Your task to perform on an android device: add a label to a message in the gmail app Image 0: 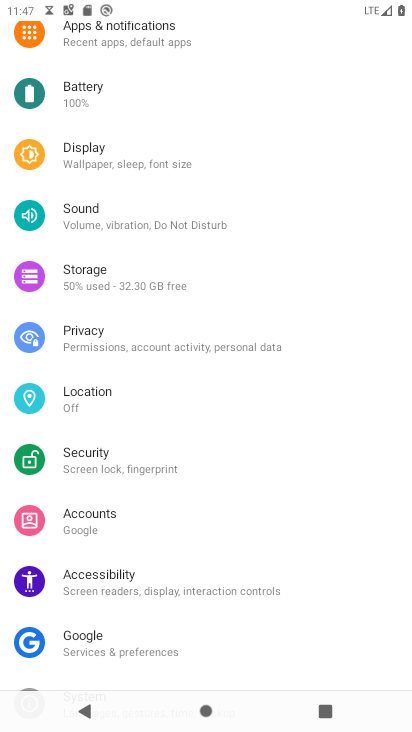
Step 0: press home button
Your task to perform on an android device: add a label to a message in the gmail app Image 1: 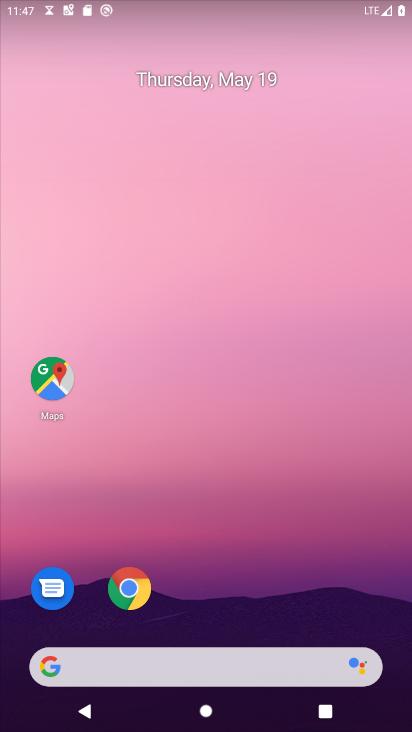
Step 1: drag from (279, 484) to (68, 9)
Your task to perform on an android device: add a label to a message in the gmail app Image 2: 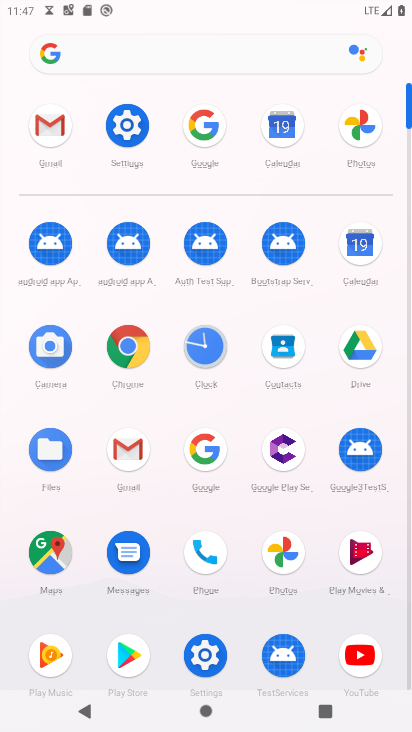
Step 2: click (55, 268)
Your task to perform on an android device: add a label to a message in the gmail app Image 3: 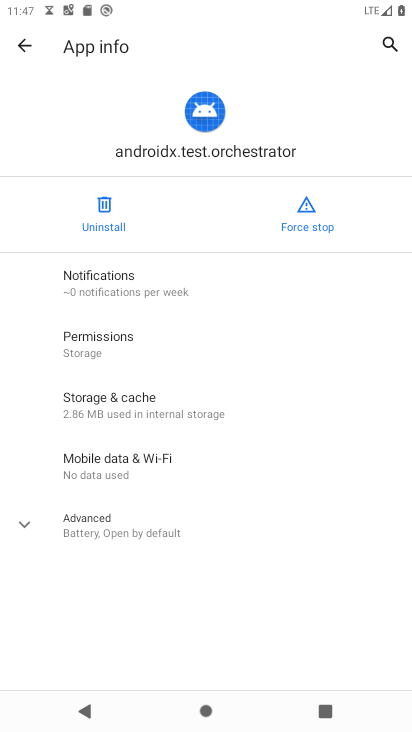
Step 3: press back button
Your task to perform on an android device: add a label to a message in the gmail app Image 4: 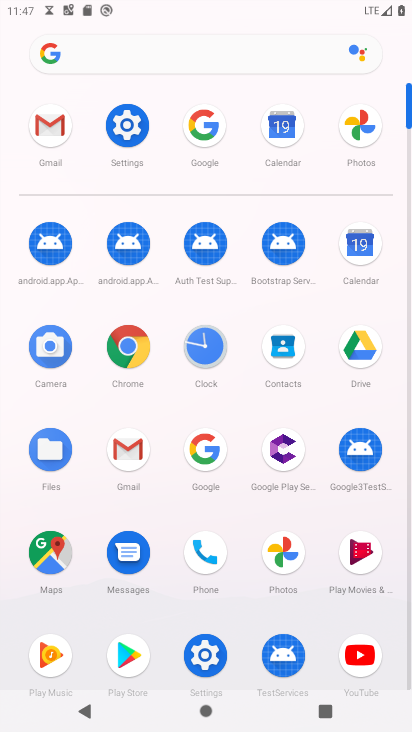
Step 4: click (45, 111)
Your task to perform on an android device: add a label to a message in the gmail app Image 5: 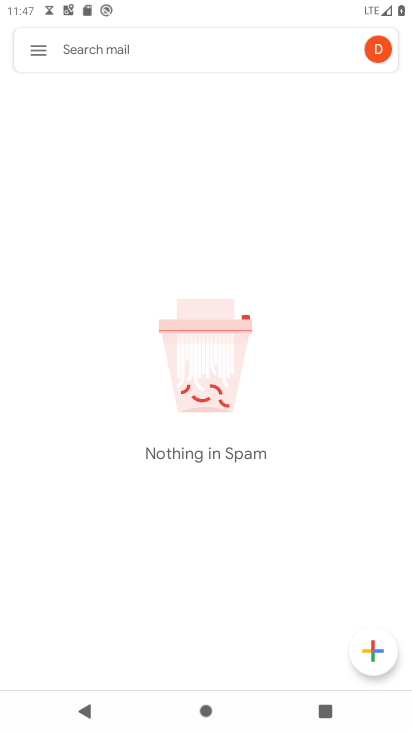
Step 5: click (39, 52)
Your task to perform on an android device: add a label to a message in the gmail app Image 6: 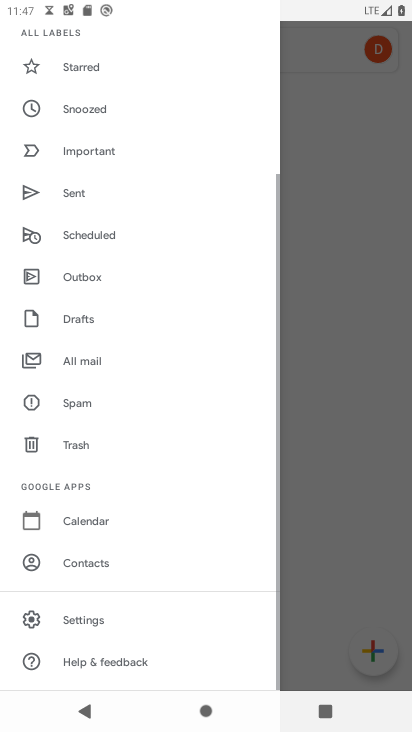
Step 6: drag from (177, 197) to (176, 690)
Your task to perform on an android device: add a label to a message in the gmail app Image 7: 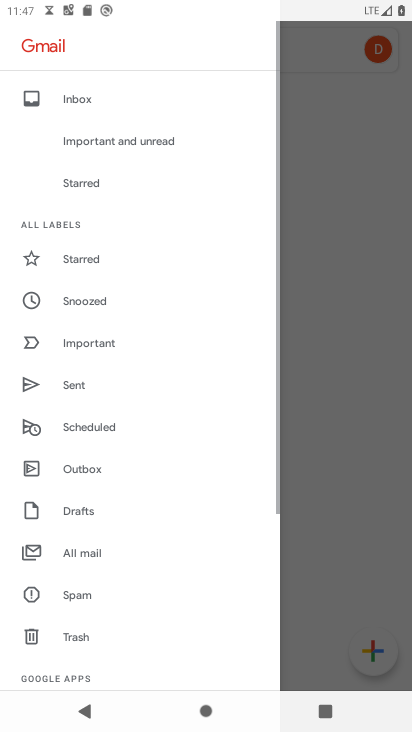
Step 7: click (115, 94)
Your task to perform on an android device: add a label to a message in the gmail app Image 8: 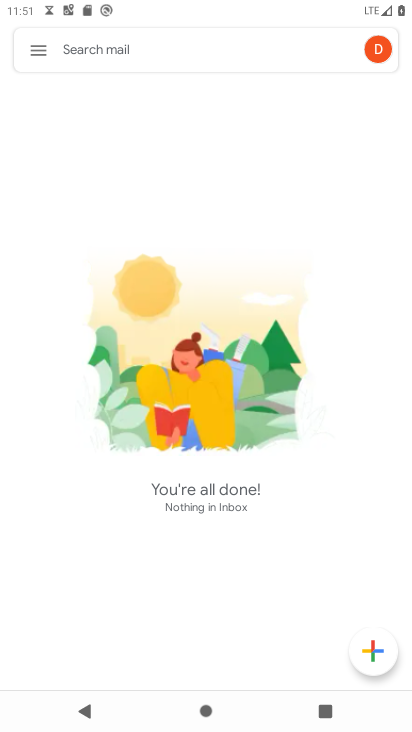
Step 8: task complete